Your task to perform on an android device: turn pop-ups on in chrome Image 0: 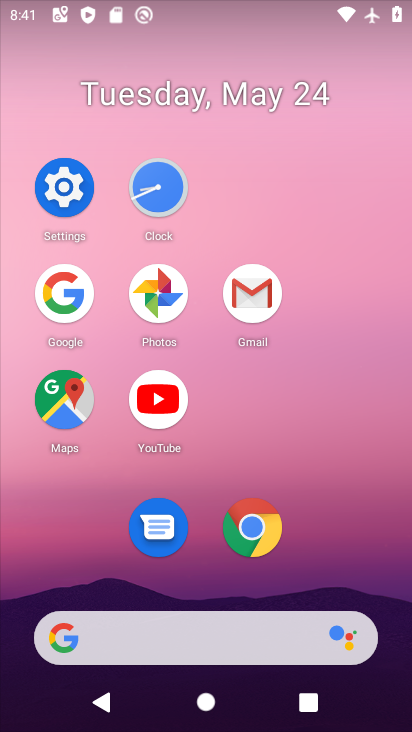
Step 0: click (241, 529)
Your task to perform on an android device: turn pop-ups on in chrome Image 1: 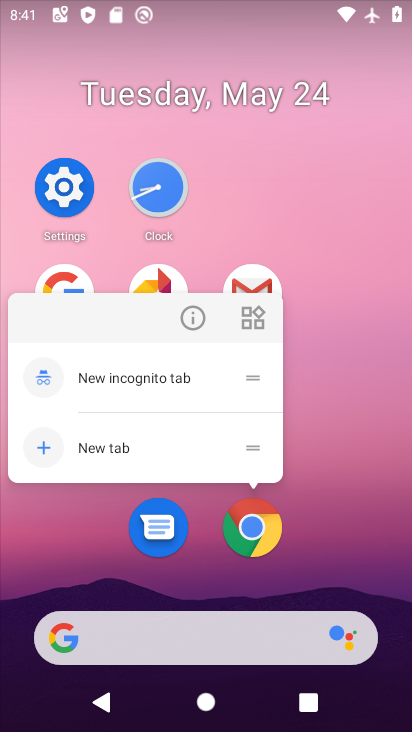
Step 1: click (241, 529)
Your task to perform on an android device: turn pop-ups on in chrome Image 2: 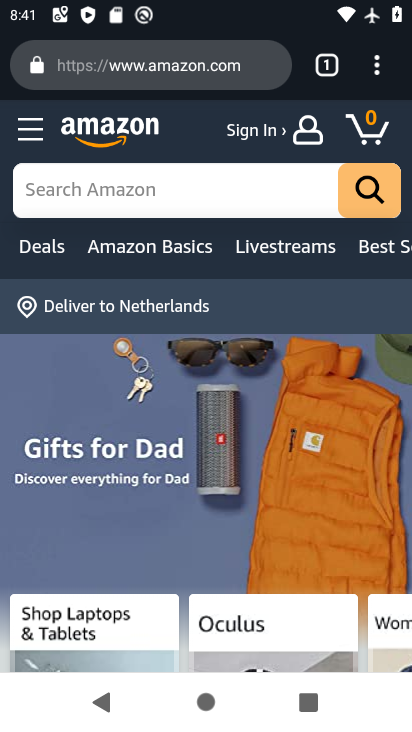
Step 2: click (385, 52)
Your task to perform on an android device: turn pop-ups on in chrome Image 3: 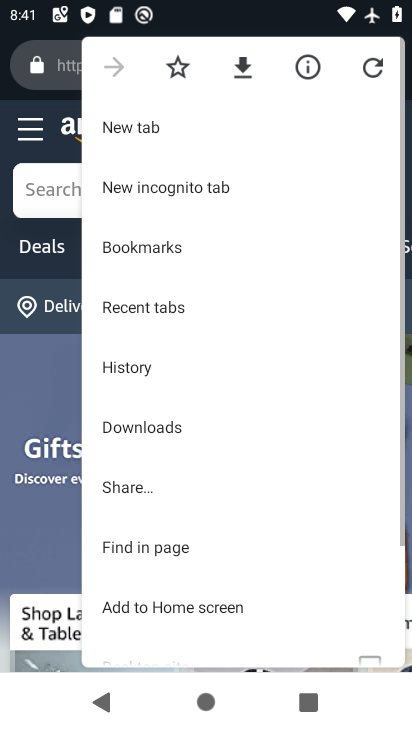
Step 3: drag from (254, 535) to (251, 314)
Your task to perform on an android device: turn pop-ups on in chrome Image 4: 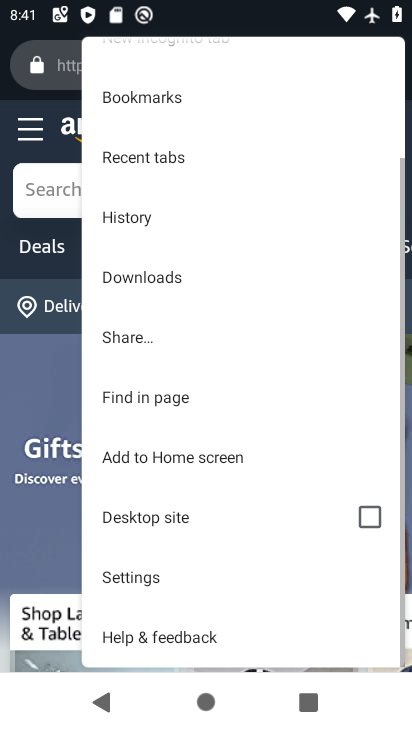
Step 4: click (193, 580)
Your task to perform on an android device: turn pop-ups on in chrome Image 5: 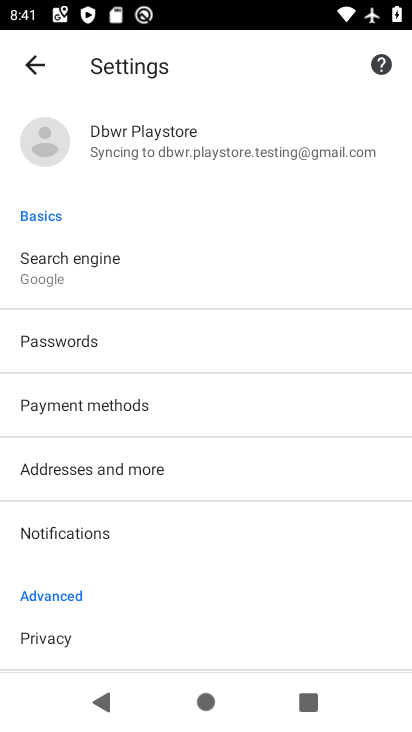
Step 5: drag from (139, 596) to (205, 303)
Your task to perform on an android device: turn pop-ups on in chrome Image 6: 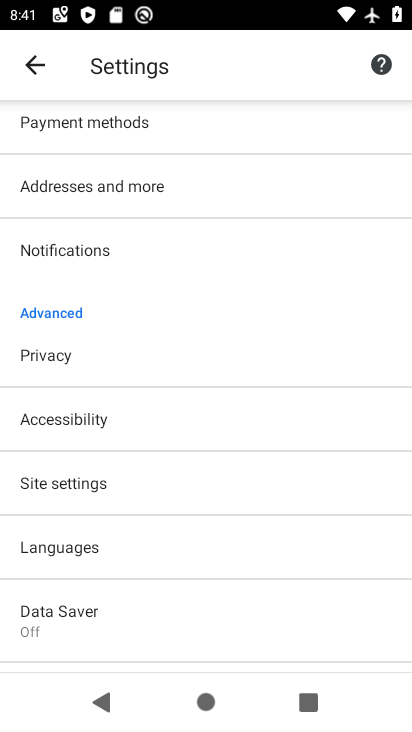
Step 6: click (219, 494)
Your task to perform on an android device: turn pop-ups on in chrome Image 7: 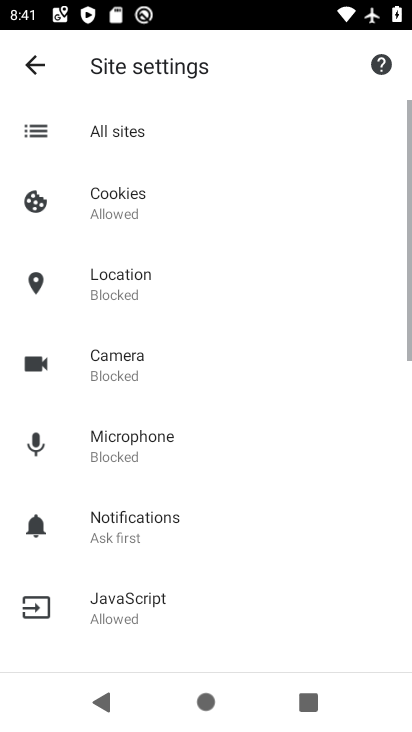
Step 7: drag from (219, 494) to (233, 226)
Your task to perform on an android device: turn pop-ups on in chrome Image 8: 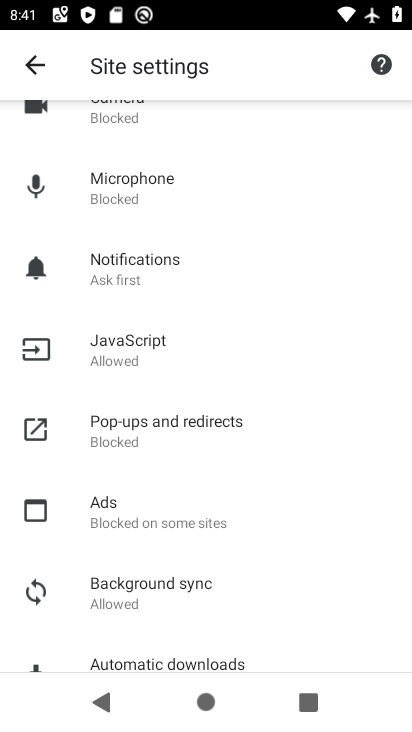
Step 8: click (213, 407)
Your task to perform on an android device: turn pop-ups on in chrome Image 9: 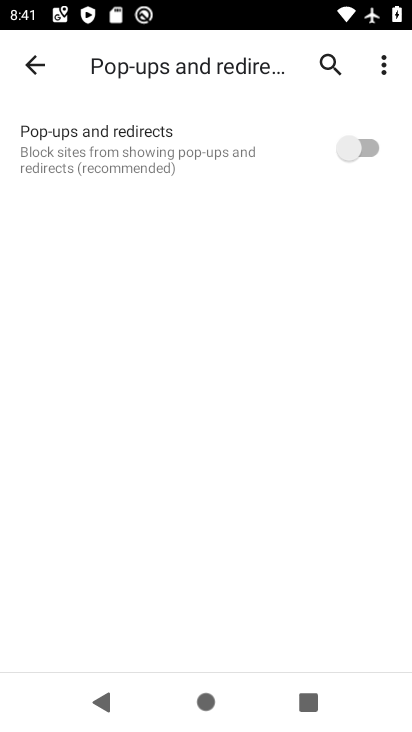
Step 9: click (334, 151)
Your task to perform on an android device: turn pop-ups on in chrome Image 10: 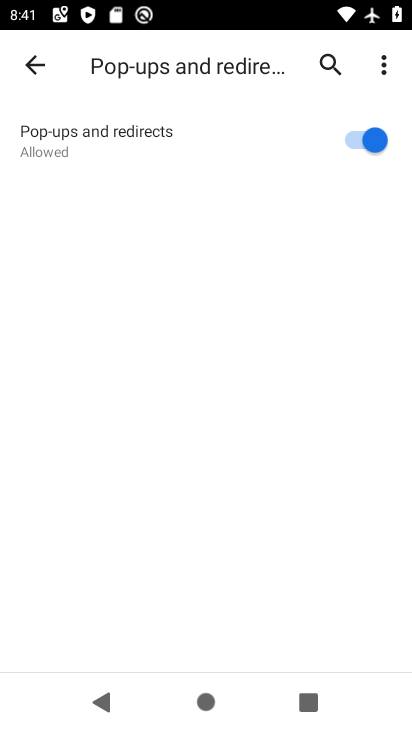
Step 10: task complete